Your task to perform on an android device: Check the weather Image 0: 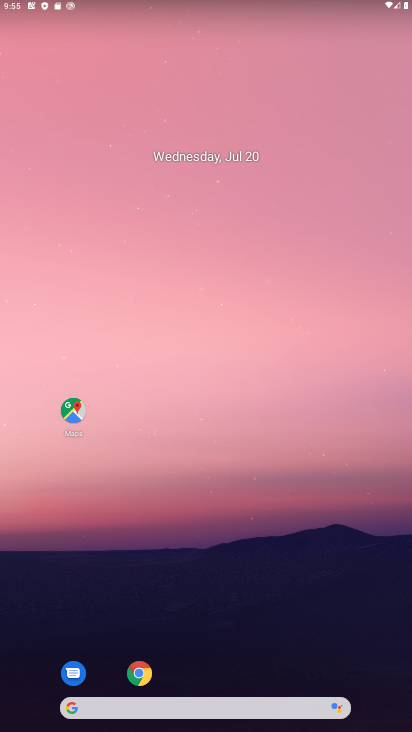
Step 0: drag from (163, 711) to (121, 284)
Your task to perform on an android device: Check the weather Image 1: 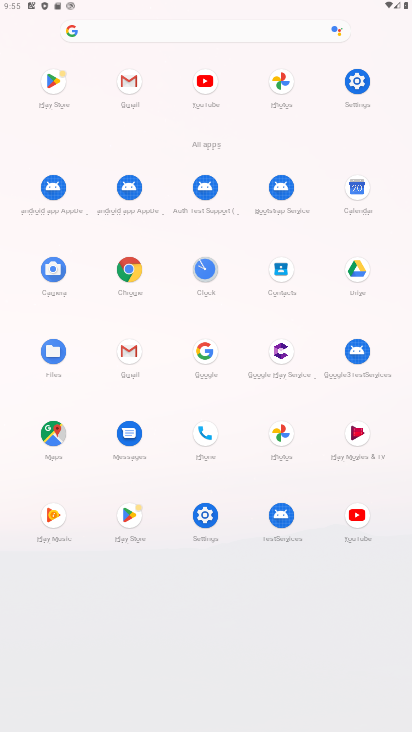
Step 1: click (203, 351)
Your task to perform on an android device: Check the weather Image 2: 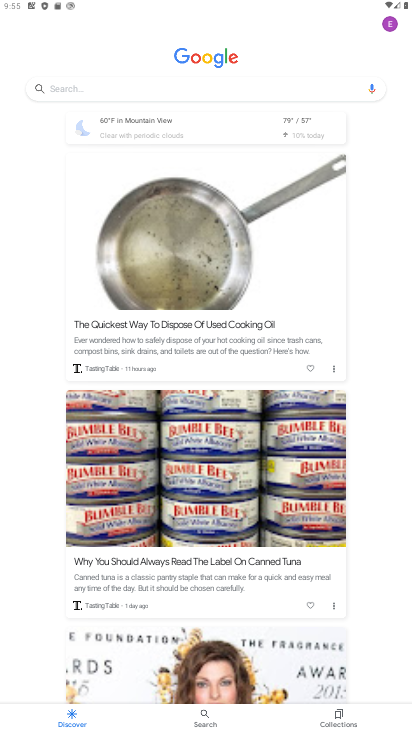
Step 2: click (147, 122)
Your task to perform on an android device: Check the weather Image 3: 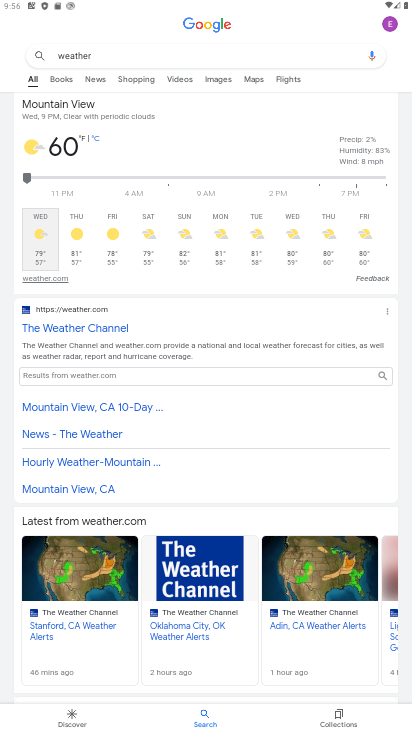
Step 3: task complete